Your task to perform on an android device: turn off notifications in google photos Image 0: 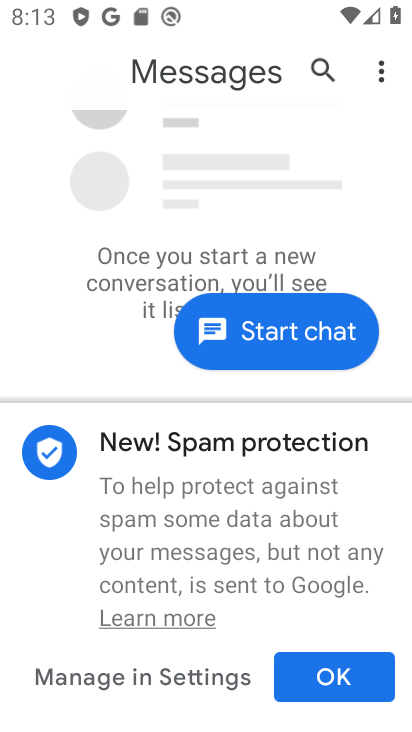
Step 0: press home button
Your task to perform on an android device: turn off notifications in google photos Image 1: 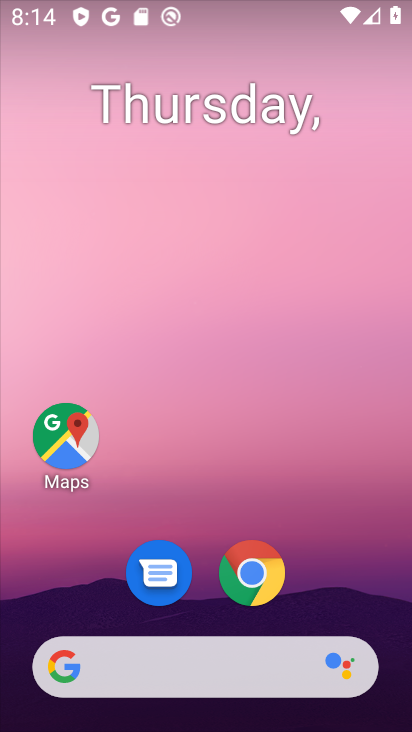
Step 1: drag from (344, 579) to (337, 81)
Your task to perform on an android device: turn off notifications in google photos Image 2: 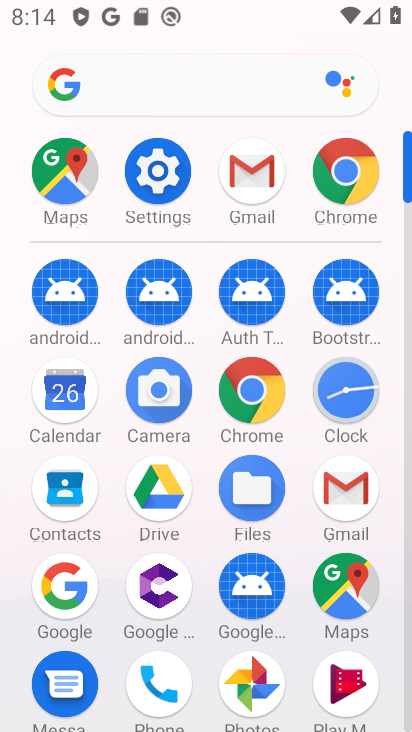
Step 2: click (247, 667)
Your task to perform on an android device: turn off notifications in google photos Image 3: 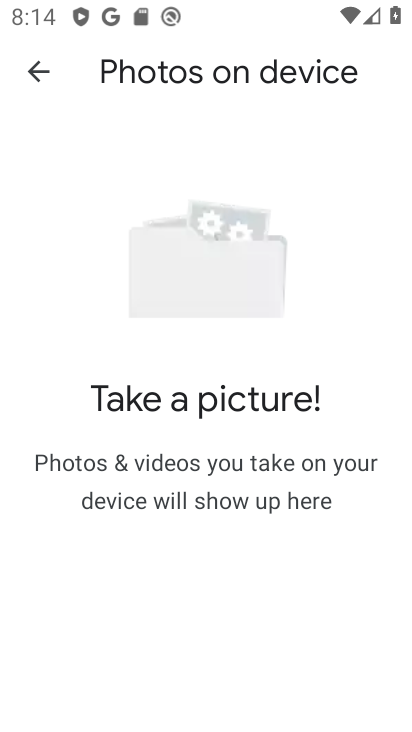
Step 3: click (42, 75)
Your task to perform on an android device: turn off notifications in google photos Image 4: 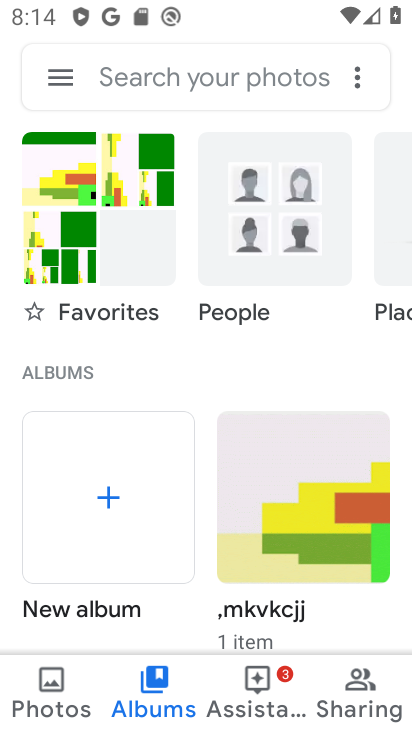
Step 4: click (43, 75)
Your task to perform on an android device: turn off notifications in google photos Image 5: 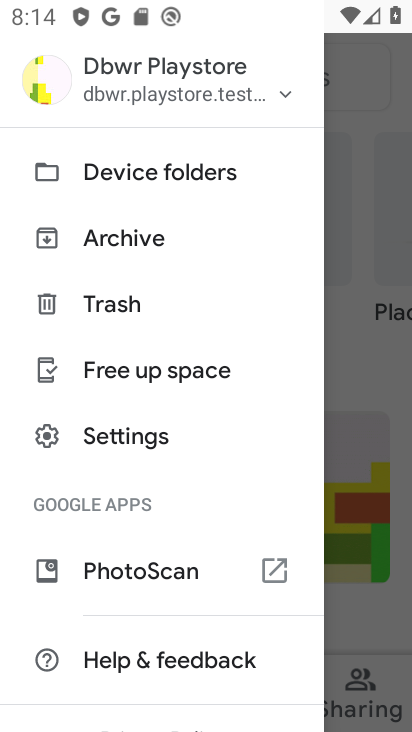
Step 5: click (133, 438)
Your task to perform on an android device: turn off notifications in google photos Image 6: 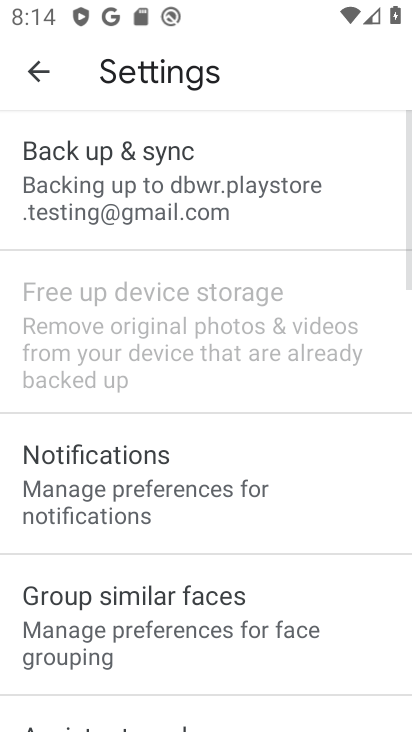
Step 6: click (153, 459)
Your task to perform on an android device: turn off notifications in google photos Image 7: 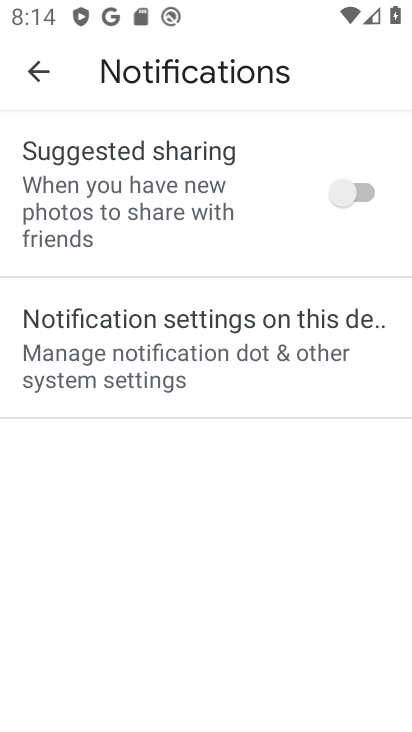
Step 7: click (163, 387)
Your task to perform on an android device: turn off notifications in google photos Image 8: 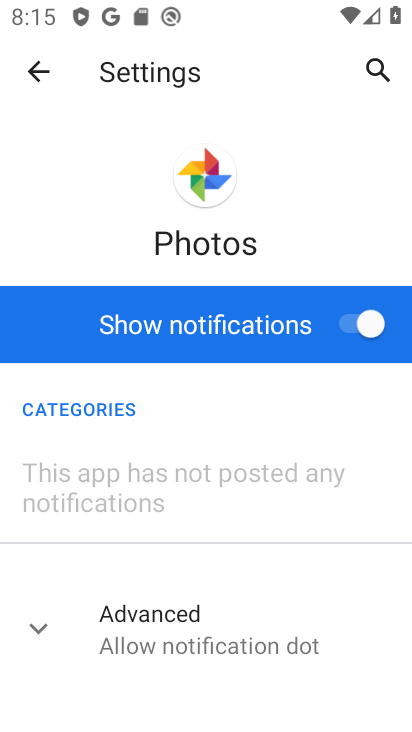
Step 8: drag from (232, 530) to (233, 240)
Your task to perform on an android device: turn off notifications in google photos Image 9: 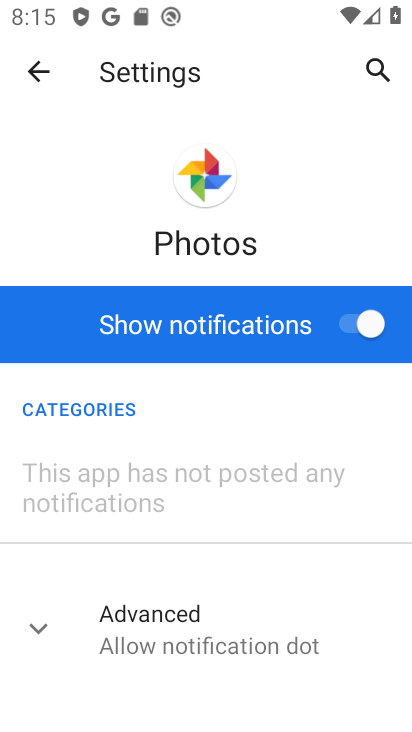
Step 9: click (354, 327)
Your task to perform on an android device: turn off notifications in google photos Image 10: 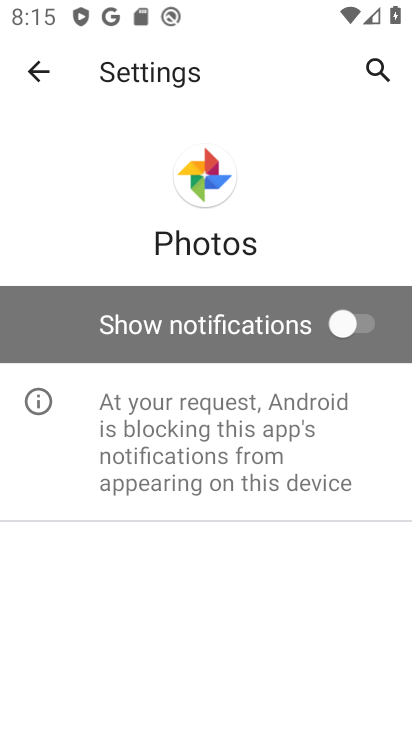
Step 10: task complete